Your task to perform on an android device: change the upload size in google photos Image 0: 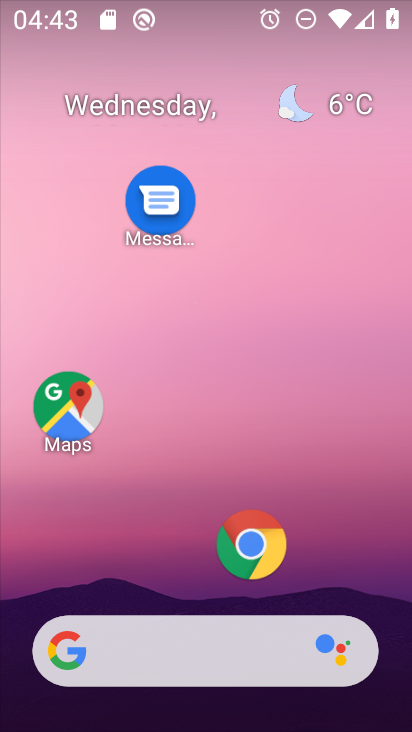
Step 0: drag from (307, 562) to (309, 7)
Your task to perform on an android device: change the upload size in google photos Image 1: 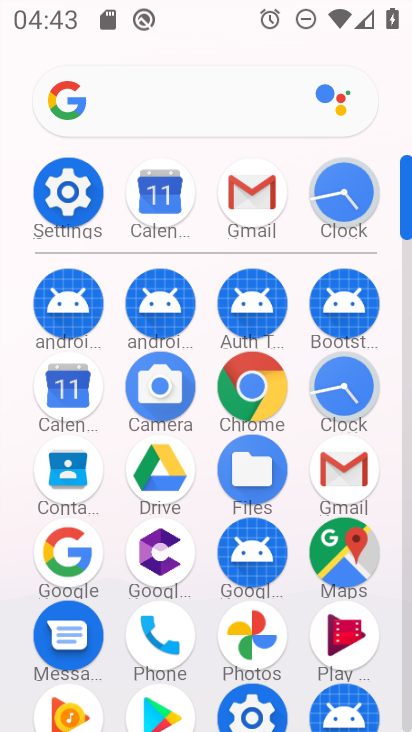
Step 1: click (229, 631)
Your task to perform on an android device: change the upload size in google photos Image 2: 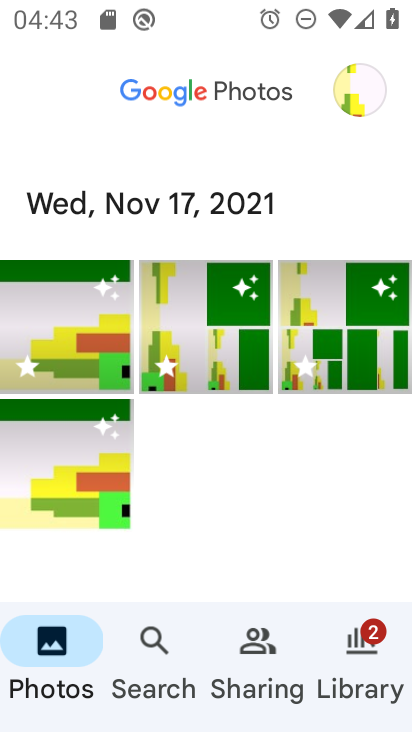
Step 2: click (352, 95)
Your task to perform on an android device: change the upload size in google photos Image 3: 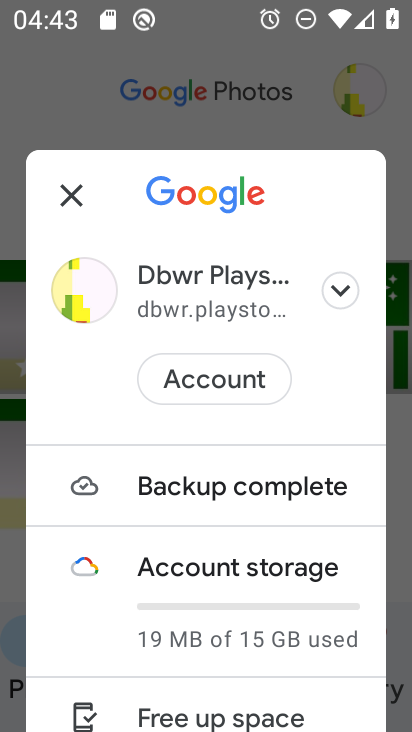
Step 3: drag from (239, 593) to (189, 313)
Your task to perform on an android device: change the upload size in google photos Image 4: 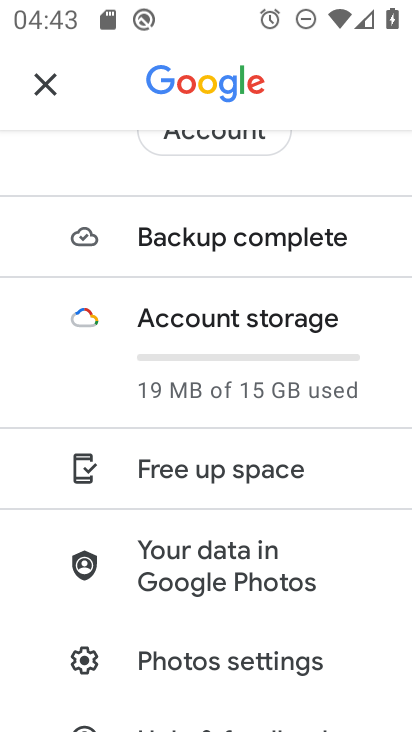
Step 4: click (226, 664)
Your task to perform on an android device: change the upload size in google photos Image 5: 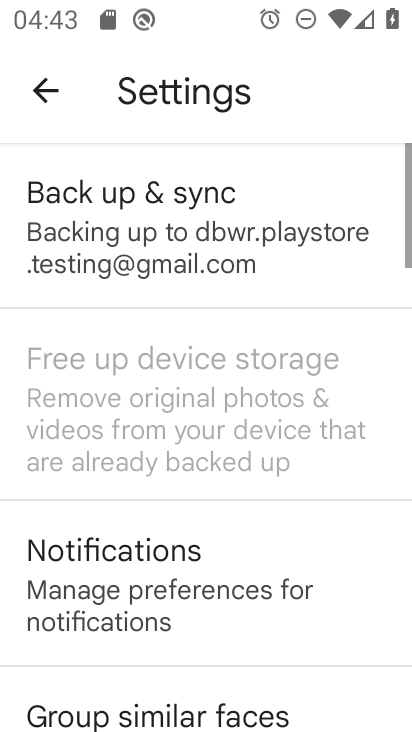
Step 5: click (110, 220)
Your task to perform on an android device: change the upload size in google photos Image 6: 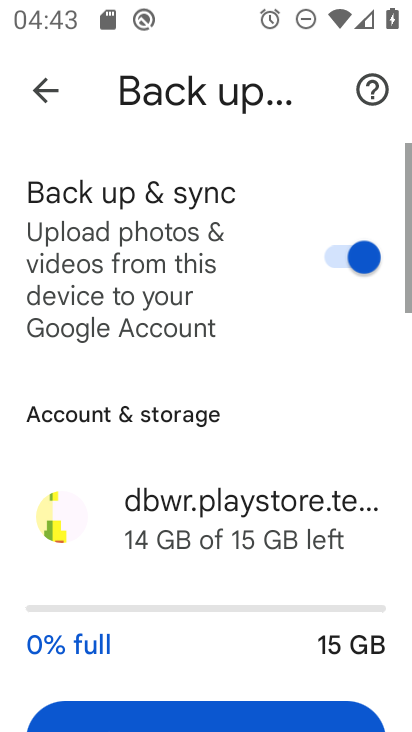
Step 6: drag from (101, 616) to (148, 320)
Your task to perform on an android device: change the upload size in google photos Image 7: 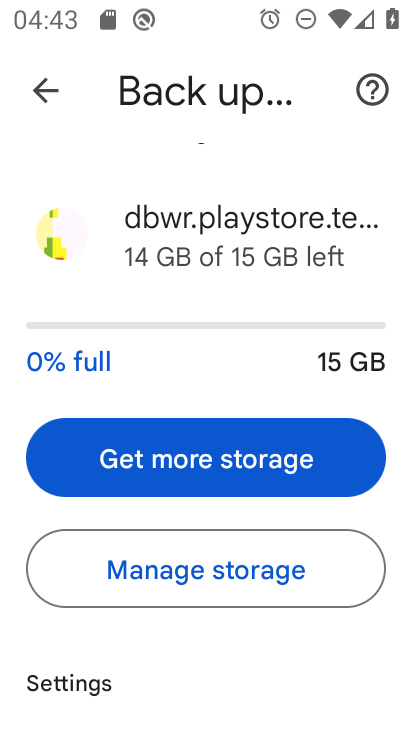
Step 7: drag from (137, 699) to (138, 277)
Your task to perform on an android device: change the upload size in google photos Image 8: 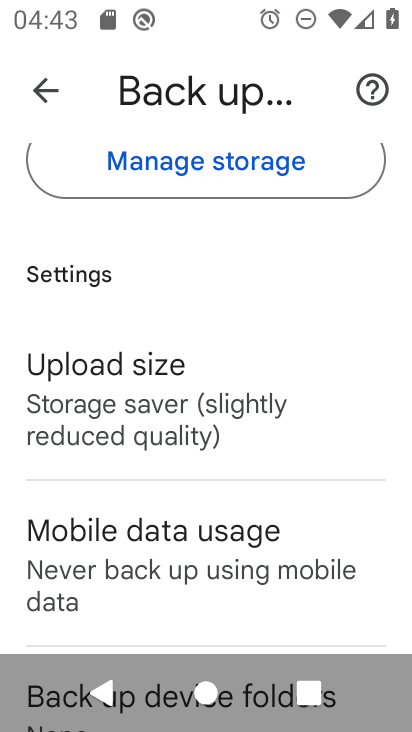
Step 8: click (125, 372)
Your task to perform on an android device: change the upload size in google photos Image 9: 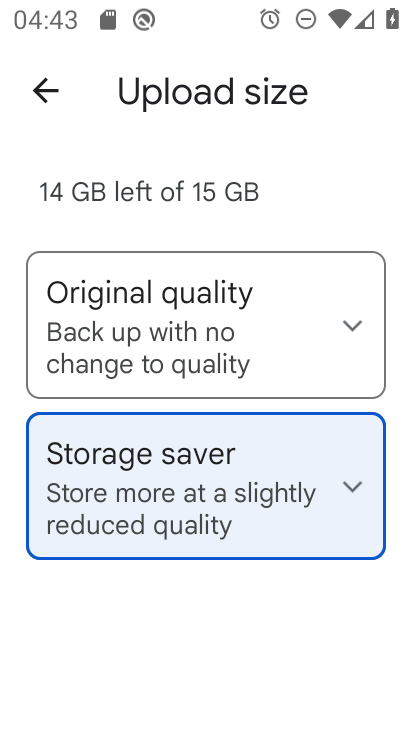
Step 9: click (125, 286)
Your task to perform on an android device: change the upload size in google photos Image 10: 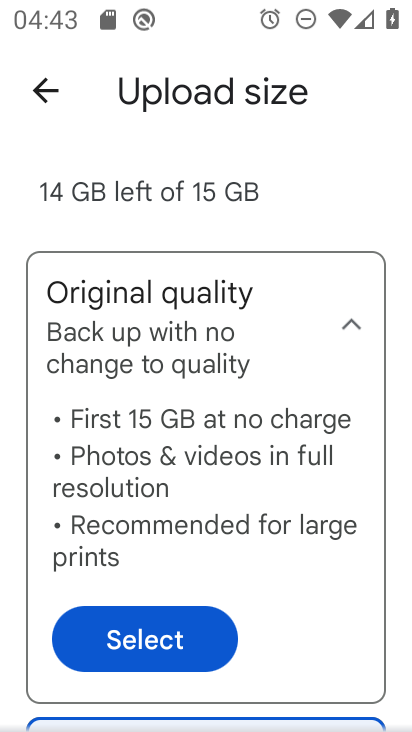
Step 10: click (92, 615)
Your task to perform on an android device: change the upload size in google photos Image 11: 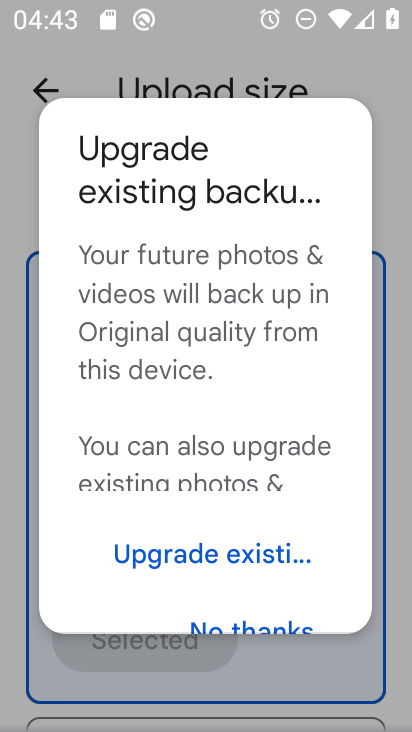
Step 11: task complete